Your task to perform on an android device: Open battery settings Image 0: 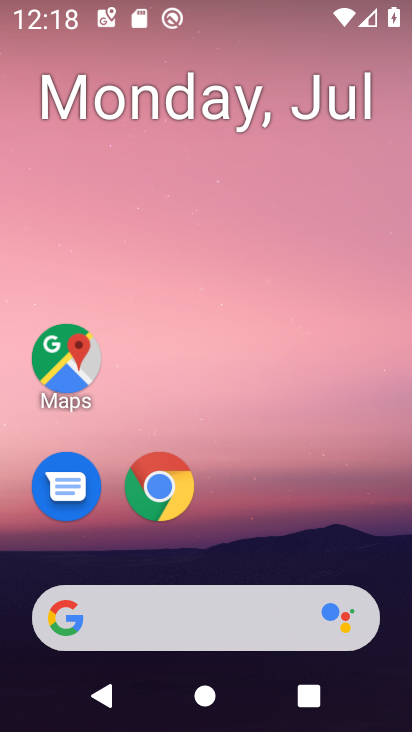
Step 0: press home button
Your task to perform on an android device: Open battery settings Image 1: 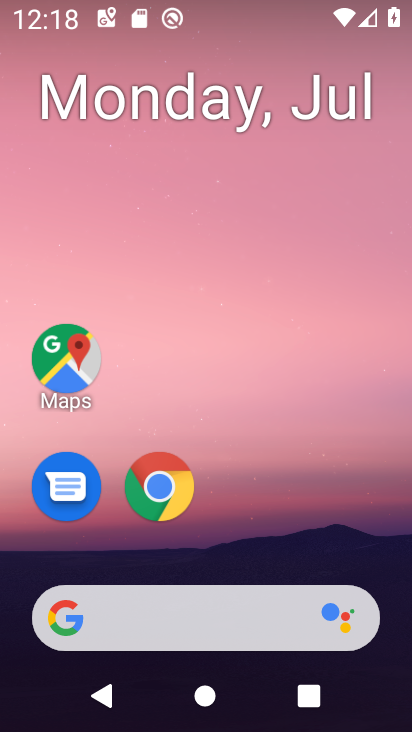
Step 1: drag from (375, 514) to (380, 51)
Your task to perform on an android device: Open battery settings Image 2: 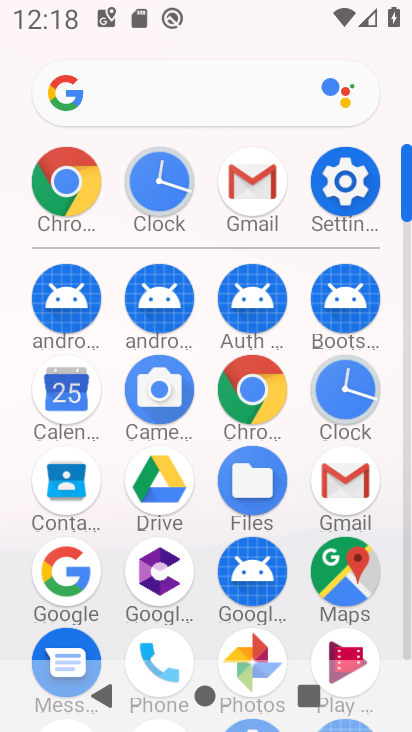
Step 2: click (354, 194)
Your task to perform on an android device: Open battery settings Image 3: 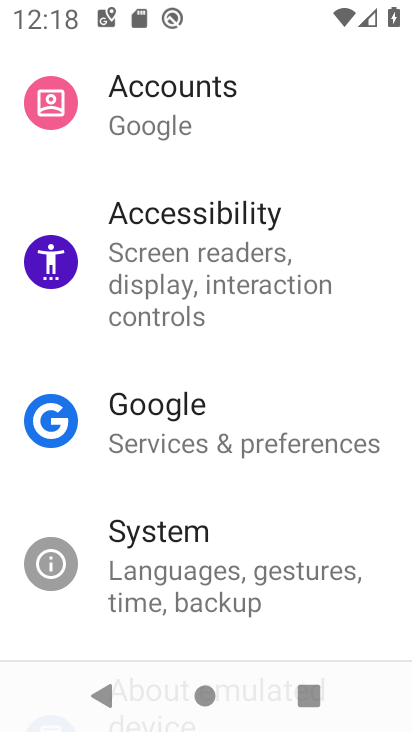
Step 3: drag from (362, 224) to (359, 346)
Your task to perform on an android device: Open battery settings Image 4: 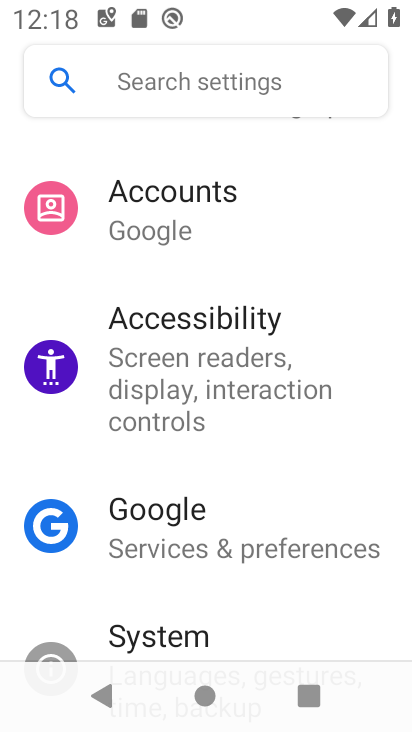
Step 4: drag from (356, 181) to (339, 331)
Your task to perform on an android device: Open battery settings Image 5: 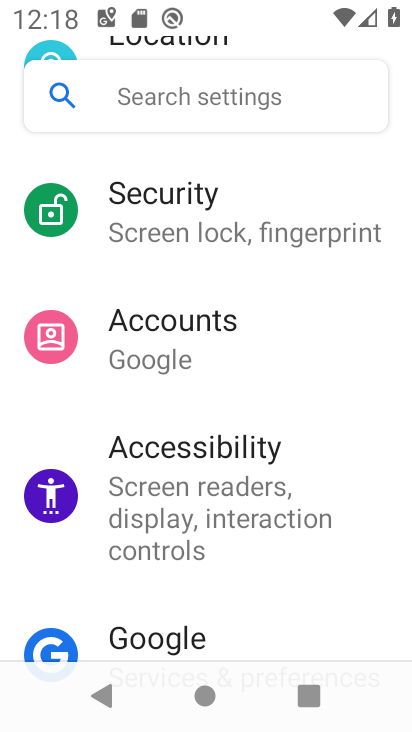
Step 5: drag from (365, 154) to (353, 336)
Your task to perform on an android device: Open battery settings Image 6: 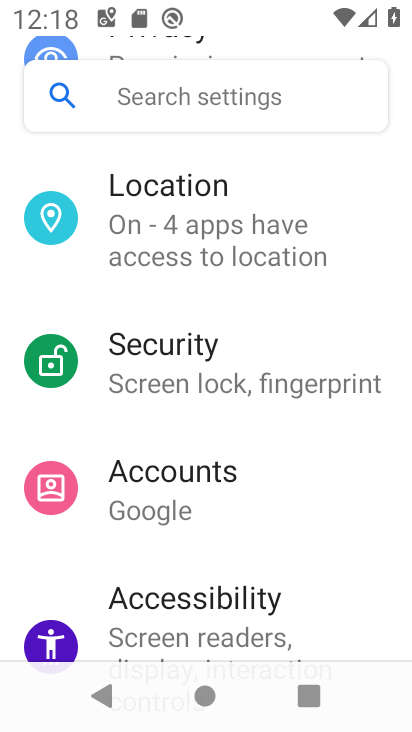
Step 6: drag from (357, 164) to (353, 317)
Your task to perform on an android device: Open battery settings Image 7: 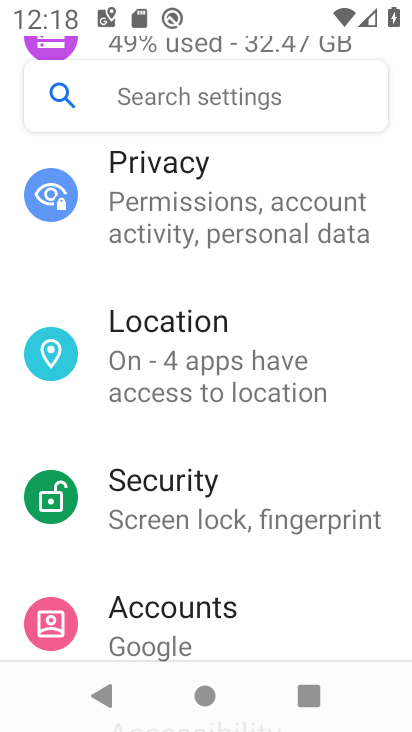
Step 7: drag from (373, 175) to (367, 361)
Your task to perform on an android device: Open battery settings Image 8: 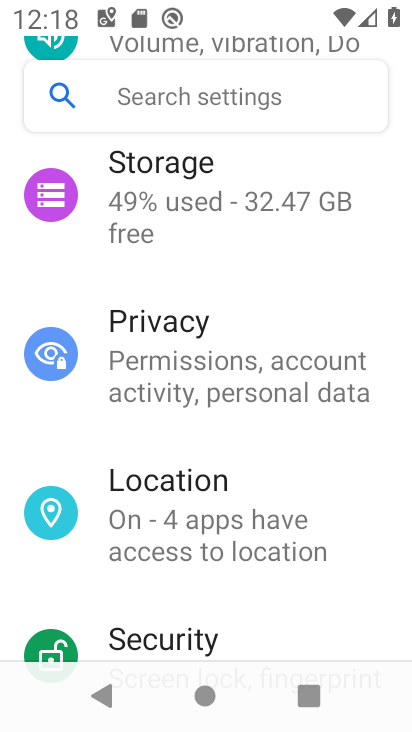
Step 8: drag from (382, 159) to (370, 343)
Your task to perform on an android device: Open battery settings Image 9: 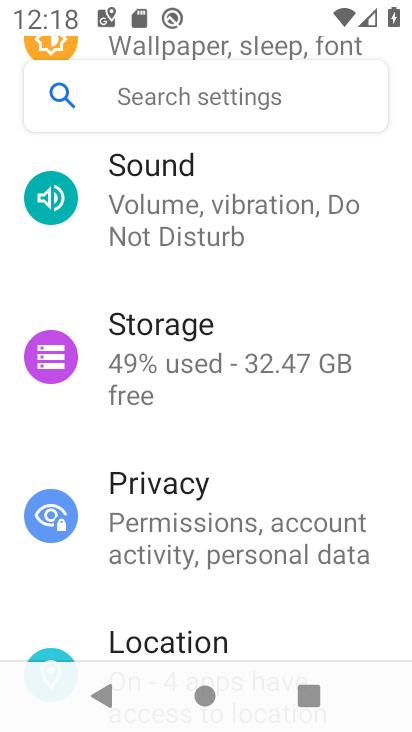
Step 9: drag from (380, 160) to (378, 349)
Your task to perform on an android device: Open battery settings Image 10: 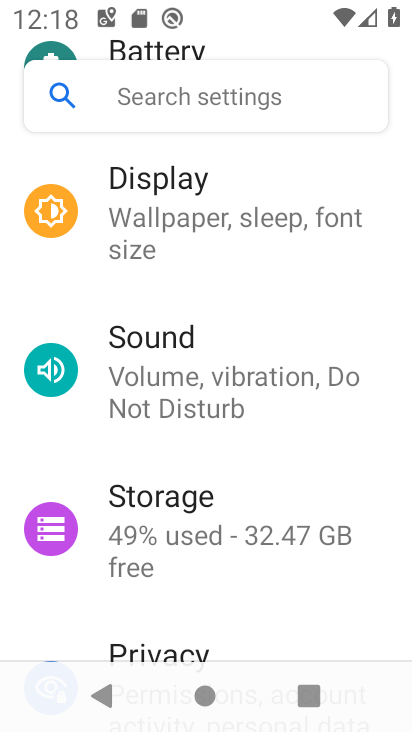
Step 10: drag from (381, 171) to (388, 345)
Your task to perform on an android device: Open battery settings Image 11: 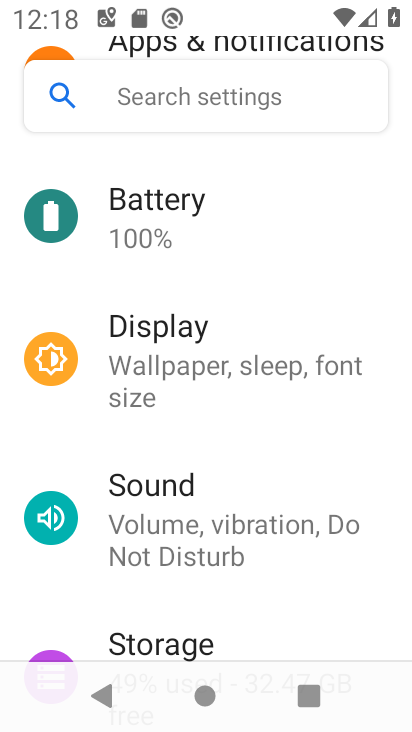
Step 11: drag from (367, 158) to (364, 325)
Your task to perform on an android device: Open battery settings Image 12: 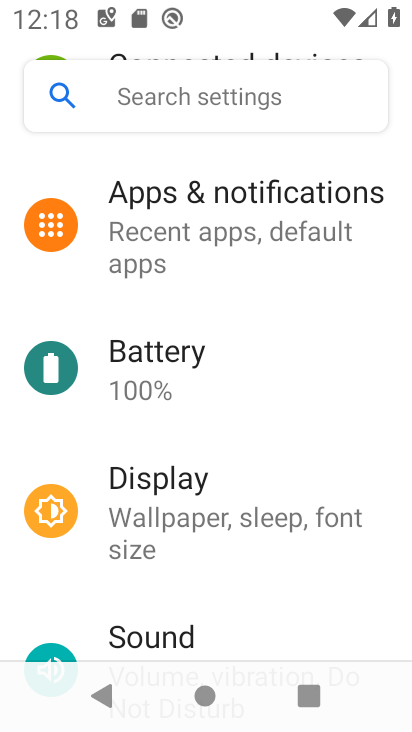
Step 12: click (255, 387)
Your task to perform on an android device: Open battery settings Image 13: 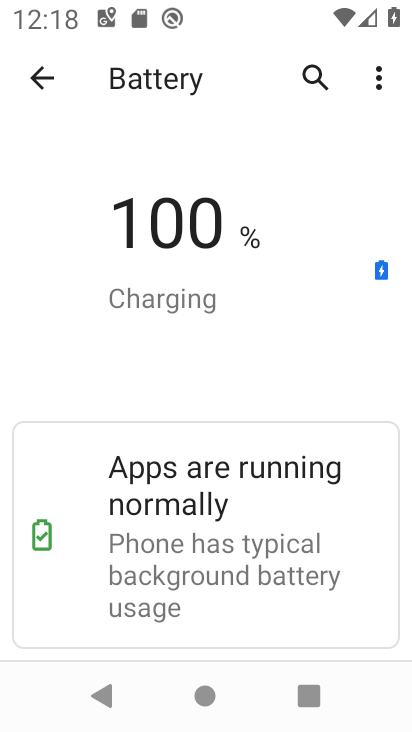
Step 13: task complete